Your task to perform on an android device: Open Reddit.com Image 0: 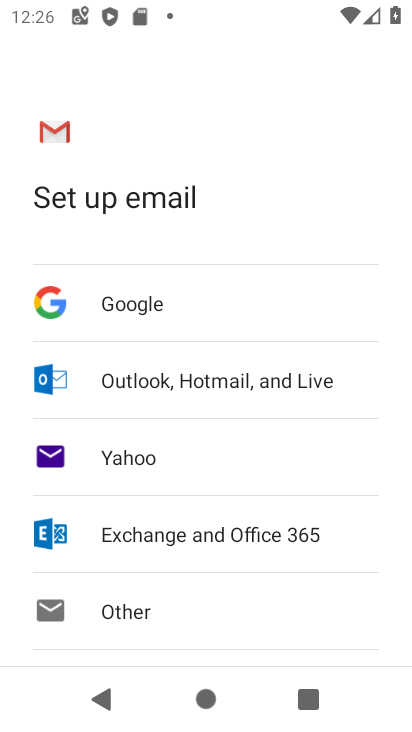
Step 0: press home button
Your task to perform on an android device: Open Reddit.com Image 1: 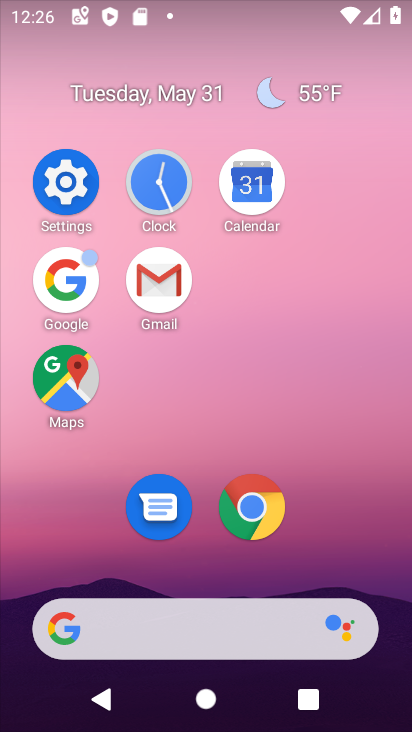
Step 1: click (265, 528)
Your task to perform on an android device: Open Reddit.com Image 2: 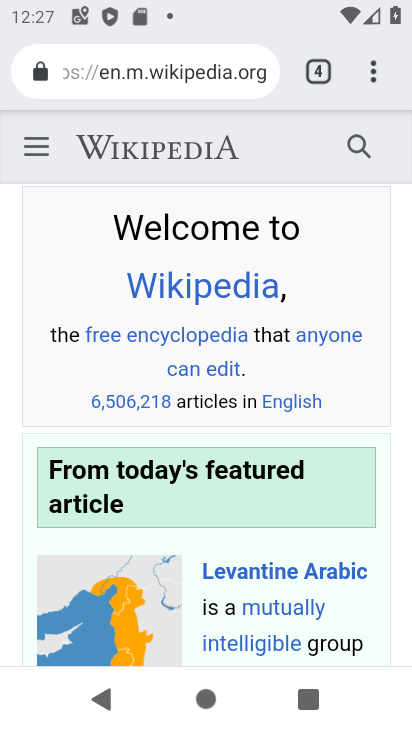
Step 2: click (328, 69)
Your task to perform on an android device: Open Reddit.com Image 3: 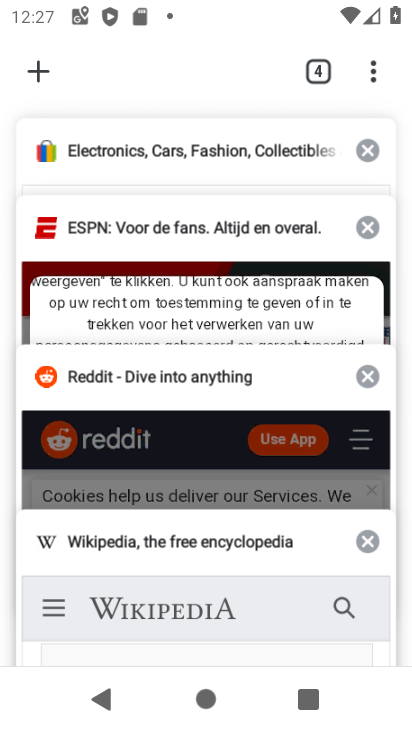
Step 3: drag from (204, 162) to (252, 521)
Your task to perform on an android device: Open Reddit.com Image 4: 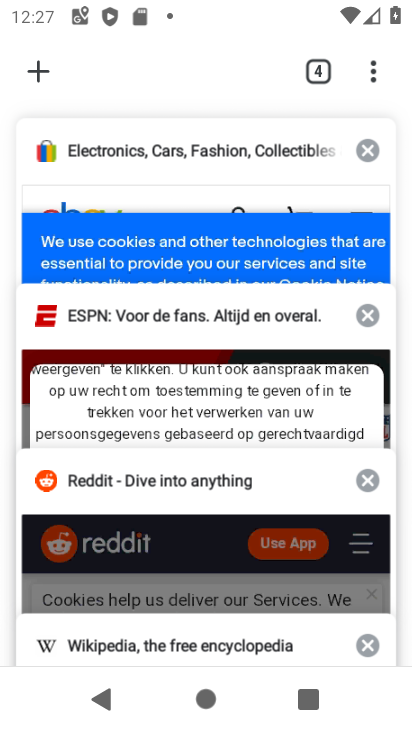
Step 4: click (52, 59)
Your task to perform on an android device: Open Reddit.com Image 5: 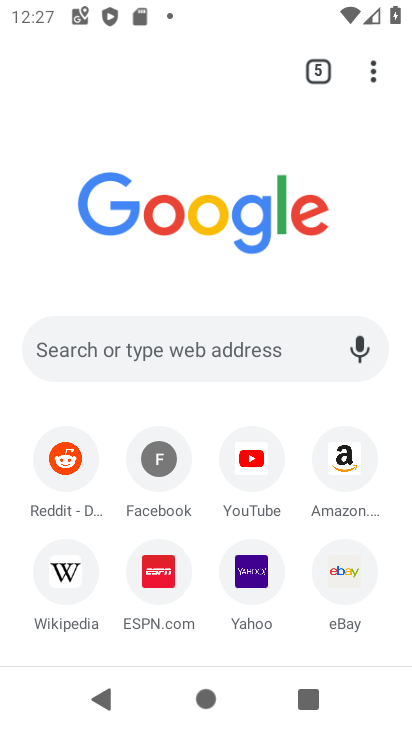
Step 5: click (201, 342)
Your task to perform on an android device: Open Reddit.com Image 6: 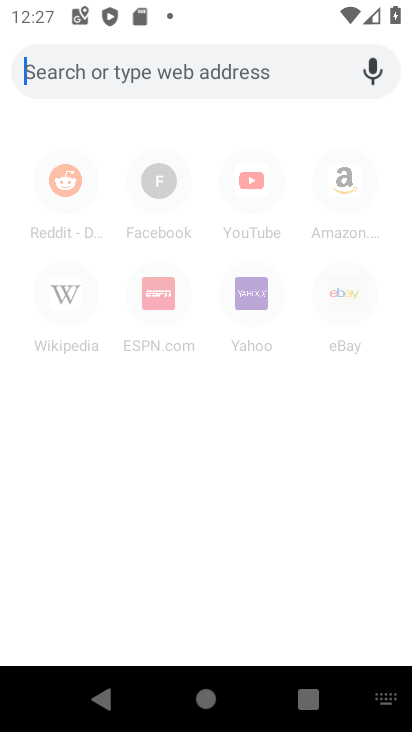
Step 6: type "reddit"
Your task to perform on an android device: Open Reddit.com Image 7: 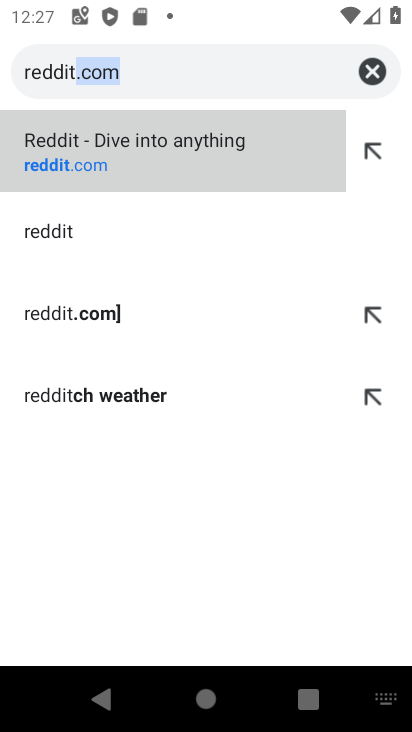
Step 7: click (93, 169)
Your task to perform on an android device: Open Reddit.com Image 8: 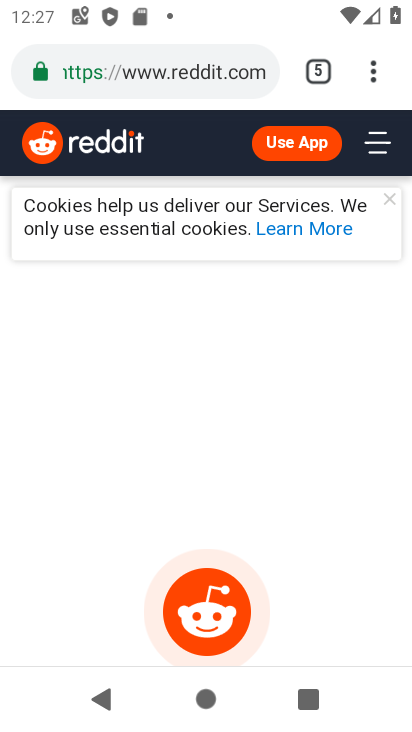
Step 8: task complete